Your task to perform on an android device: Open calendar and show me the fourth week of next month Image 0: 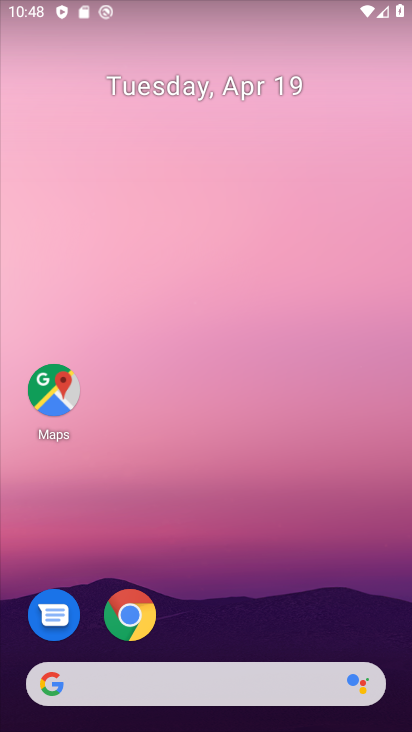
Step 0: drag from (216, 348) to (235, 181)
Your task to perform on an android device: Open calendar and show me the fourth week of next month Image 1: 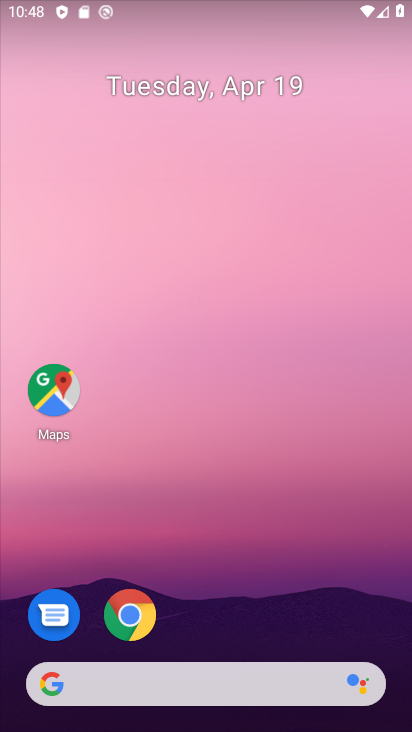
Step 1: drag from (253, 656) to (291, 184)
Your task to perform on an android device: Open calendar and show me the fourth week of next month Image 2: 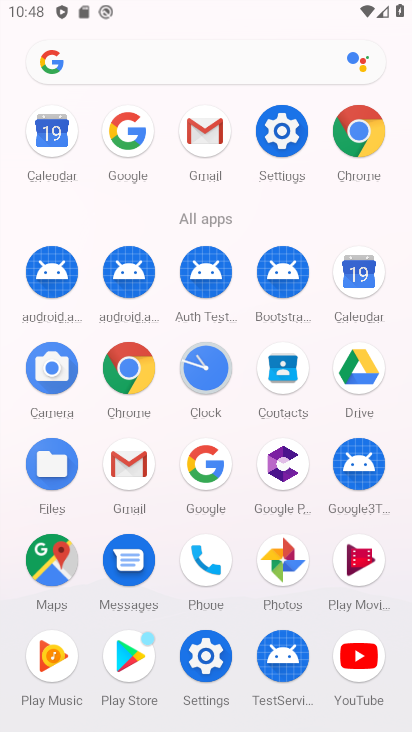
Step 2: click (354, 279)
Your task to perform on an android device: Open calendar and show me the fourth week of next month Image 3: 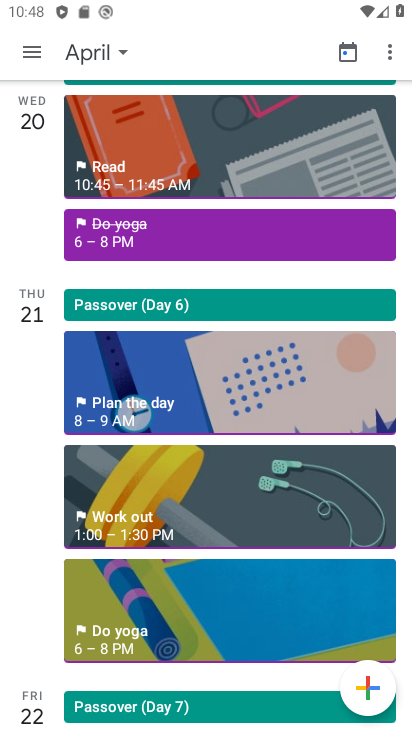
Step 3: click (112, 49)
Your task to perform on an android device: Open calendar and show me the fourth week of next month Image 4: 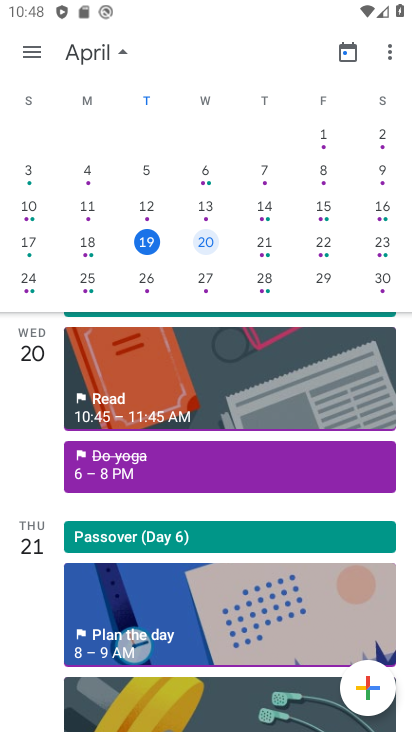
Step 4: drag from (382, 222) to (22, 267)
Your task to perform on an android device: Open calendar and show me the fourth week of next month Image 5: 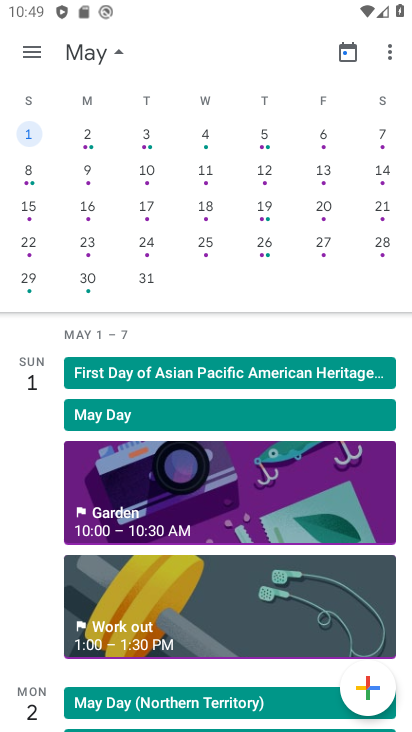
Step 5: click (32, 235)
Your task to perform on an android device: Open calendar and show me the fourth week of next month Image 6: 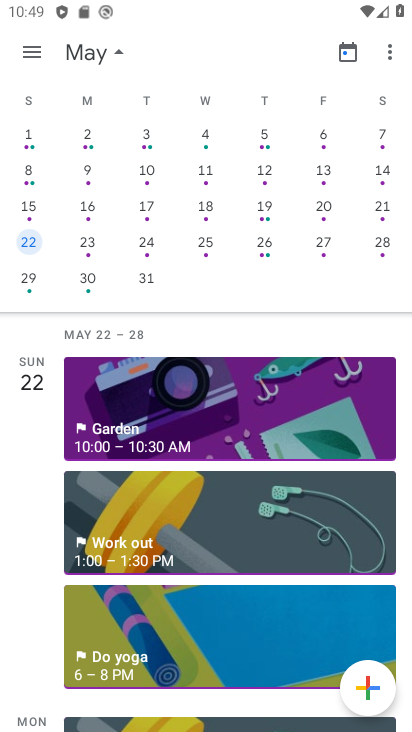
Step 6: task complete